Your task to perform on an android device: Go to Amazon Image 0: 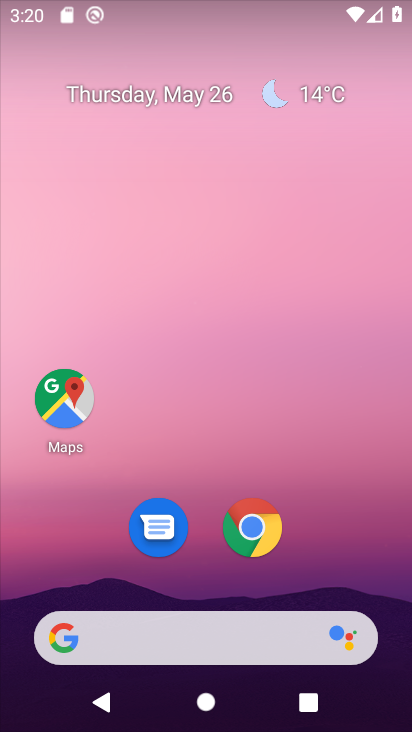
Step 0: click (260, 526)
Your task to perform on an android device: Go to Amazon Image 1: 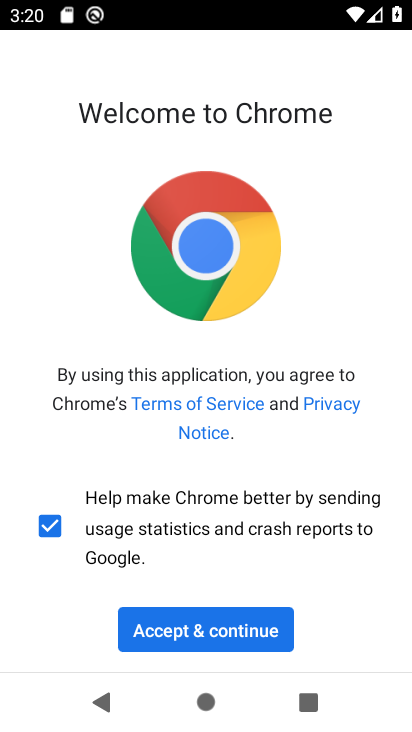
Step 1: click (245, 629)
Your task to perform on an android device: Go to Amazon Image 2: 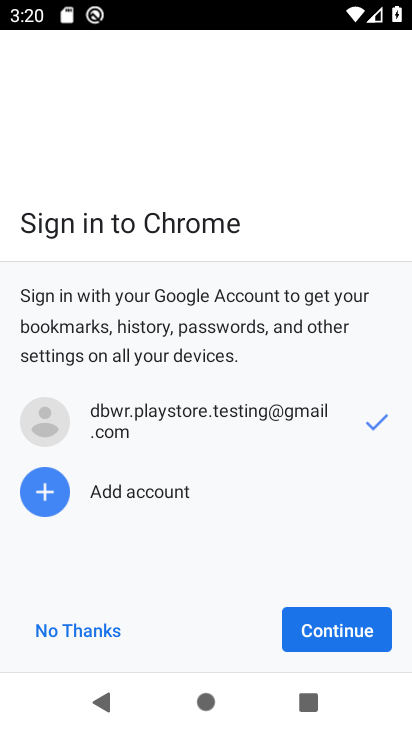
Step 2: click (362, 629)
Your task to perform on an android device: Go to Amazon Image 3: 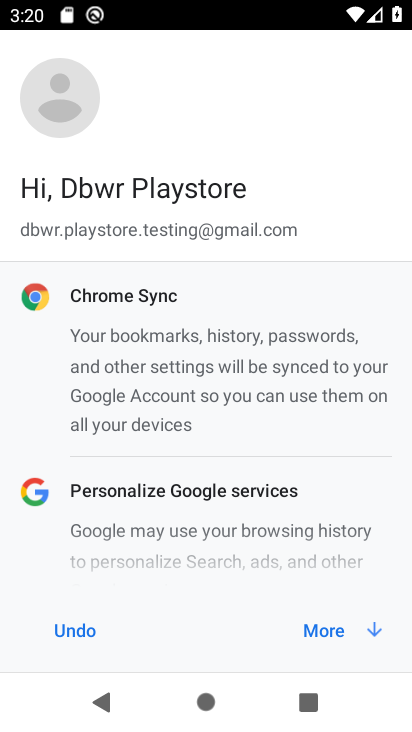
Step 3: click (362, 629)
Your task to perform on an android device: Go to Amazon Image 4: 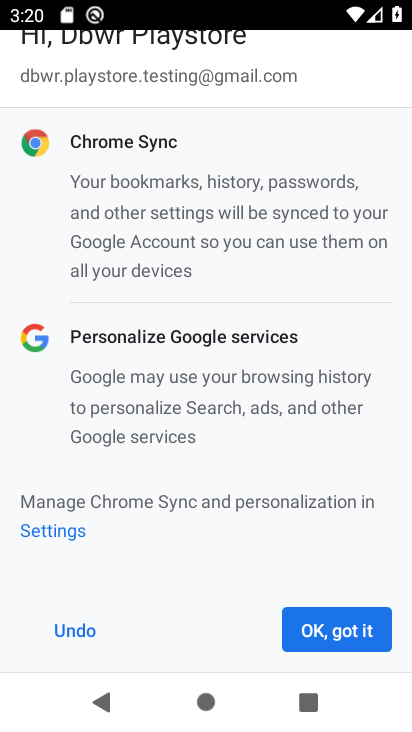
Step 4: click (362, 629)
Your task to perform on an android device: Go to Amazon Image 5: 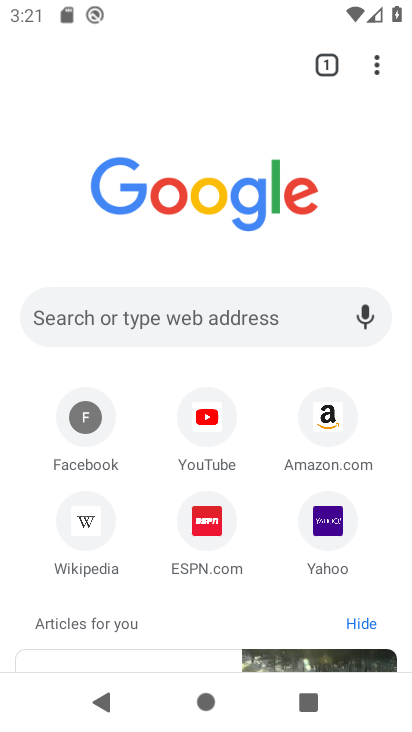
Step 5: click (335, 402)
Your task to perform on an android device: Go to Amazon Image 6: 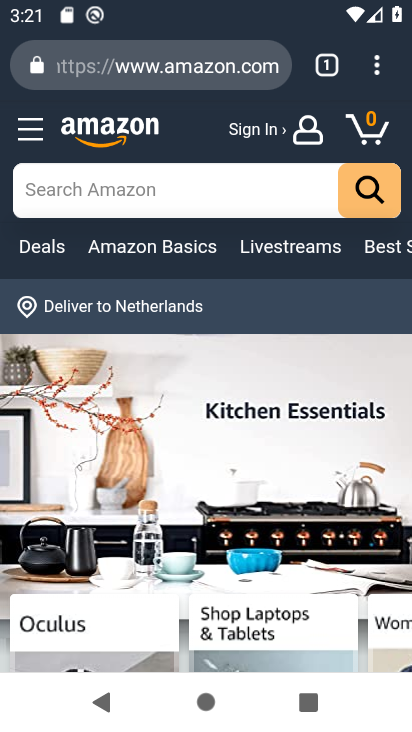
Step 6: task complete